Your task to perform on an android device: see creations saved in the google photos Image 0: 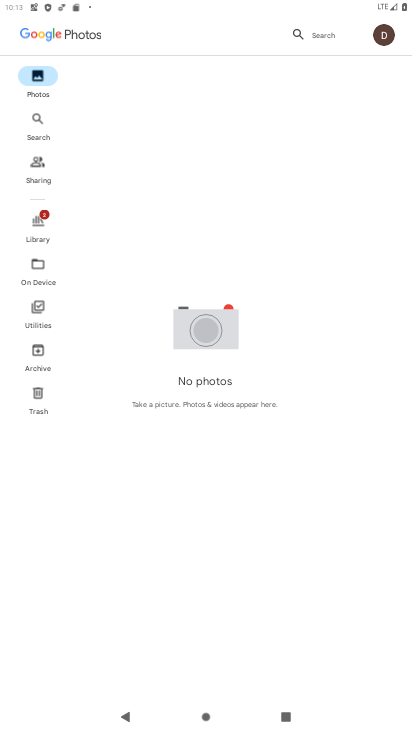
Step 0: click (32, 117)
Your task to perform on an android device: see creations saved in the google photos Image 1: 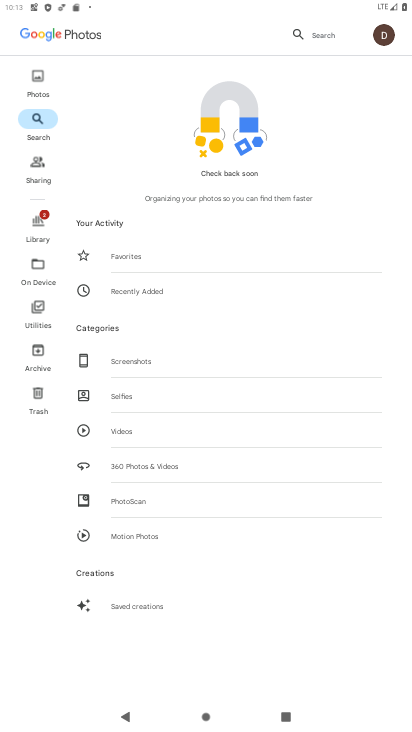
Step 1: click (144, 606)
Your task to perform on an android device: see creations saved in the google photos Image 2: 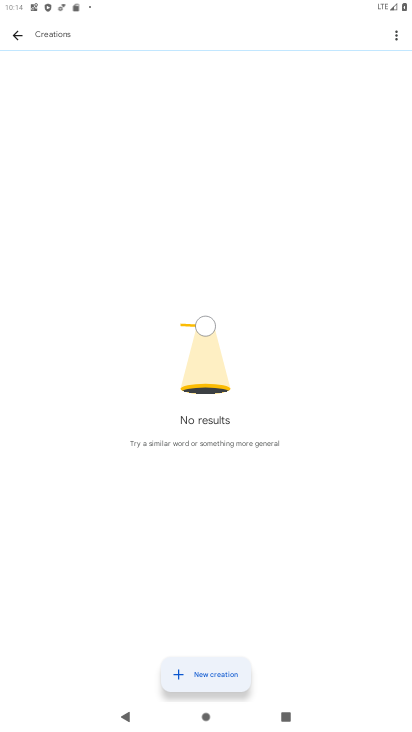
Step 2: task complete